Your task to perform on an android device: delete the emails in spam in the gmail app Image 0: 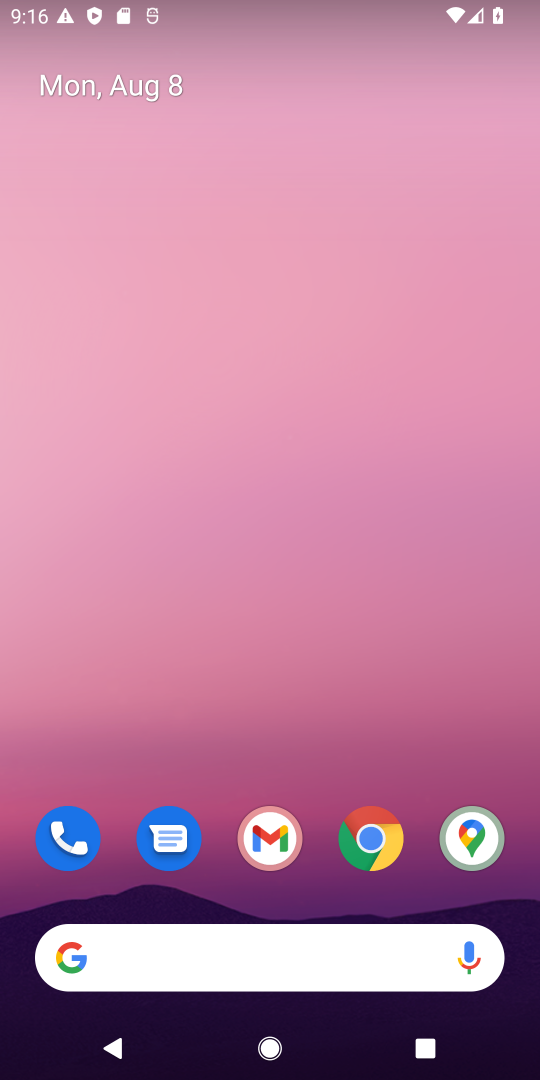
Step 0: press home button
Your task to perform on an android device: delete the emails in spam in the gmail app Image 1: 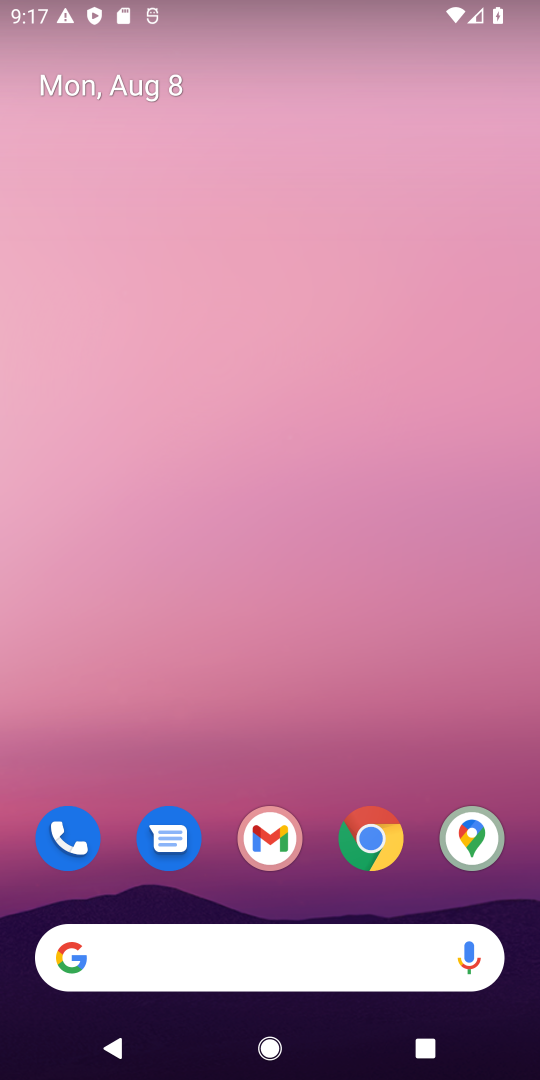
Step 1: drag from (334, 897) to (413, 343)
Your task to perform on an android device: delete the emails in spam in the gmail app Image 2: 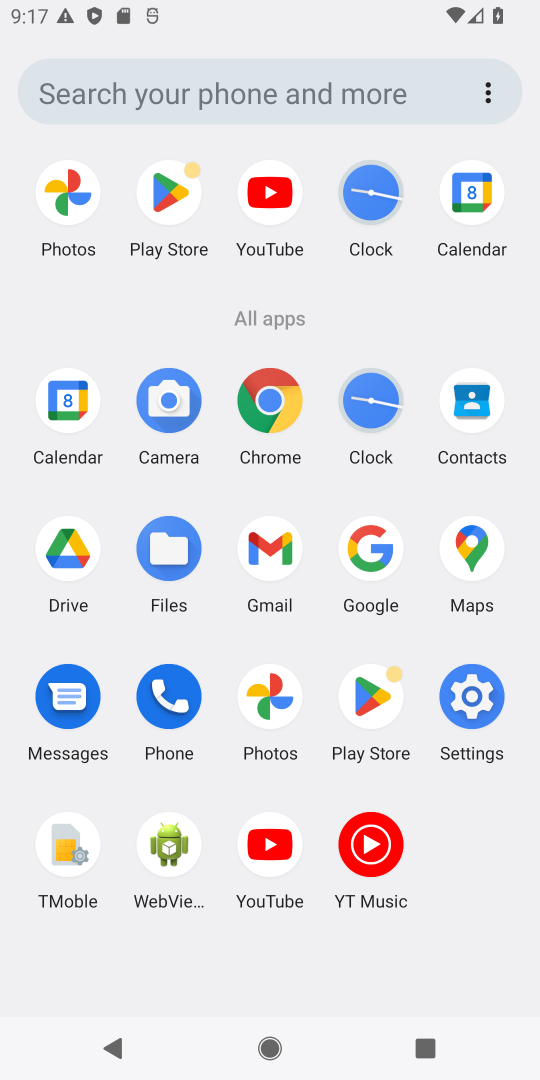
Step 2: click (262, 553)
Your task to perform on an android device: delete the emails in spam in the gmail app Image 3: 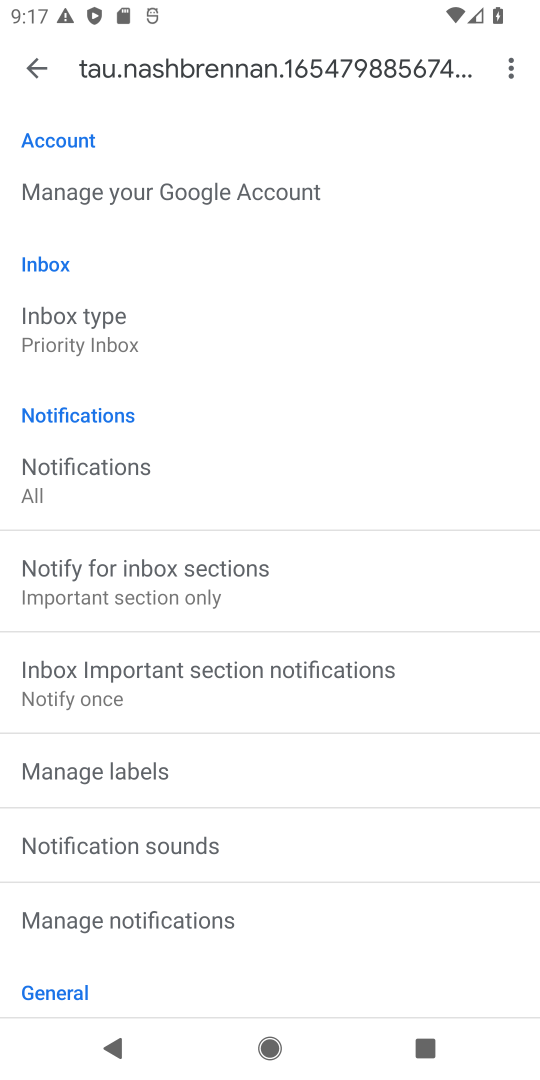
Step 3: click (34, 77)
Your task to perform on an android device: delete the emails in spam in the gmail app Image 4: 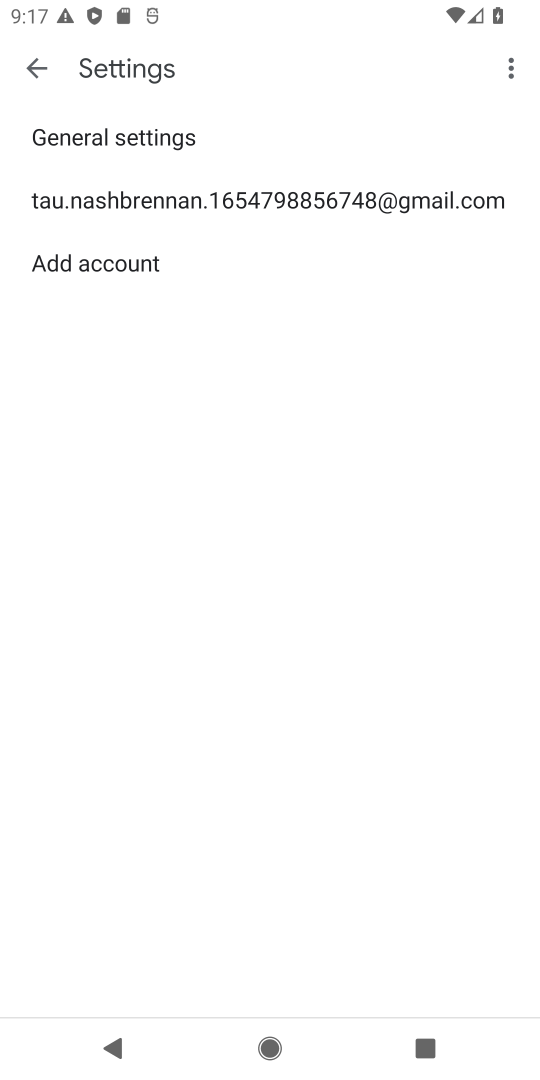
Step 4: click (38, 72)
Your task to perform on an android device: delete the emails in spam in the gmail app Image 5: 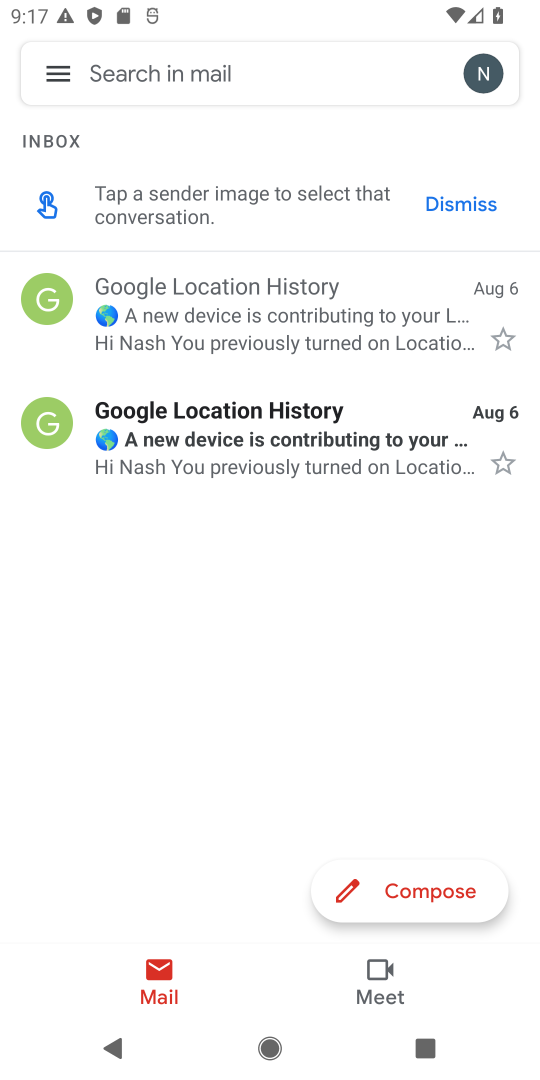
Step 5: click (61, 69)
Your task to perform on an android device: delete the emails in spam in the gmail app Image 6: 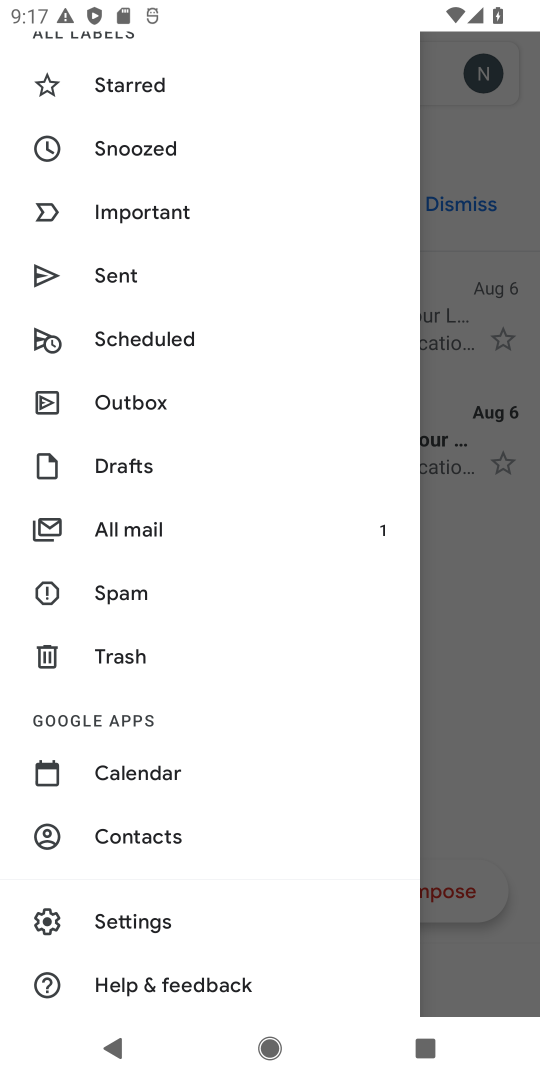
Step 6: click (123, 598)
Your task to perform on an android device: delete the emails in spam in the gmail app Image 7: 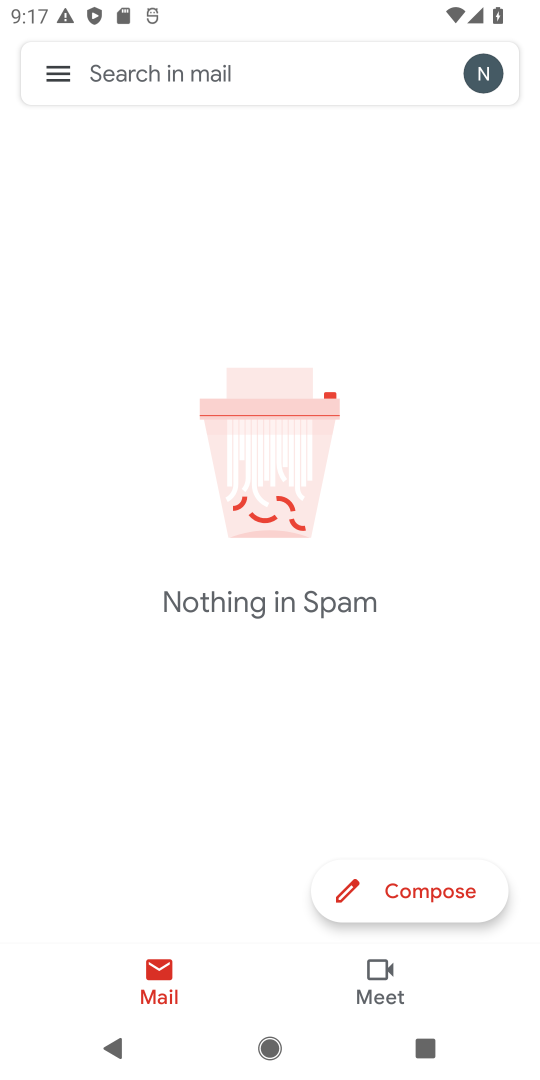
Step 7: task complete